Your task to perform on an android device: Is it going to rain today? Image 0: 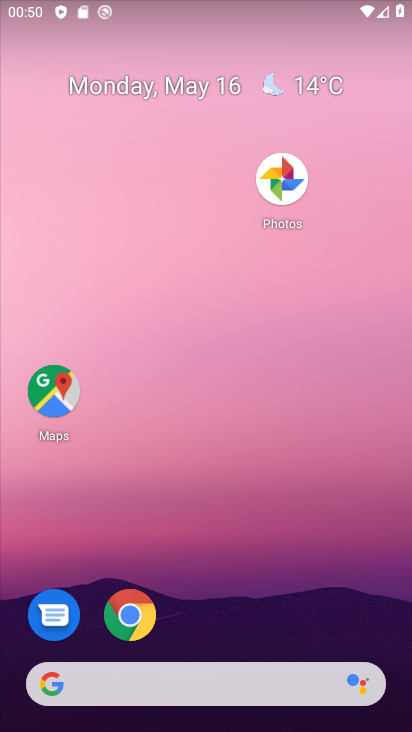
Step 0: click (330, 150)
Your task to perform on an android device: Is it going to rain today? Image 1: 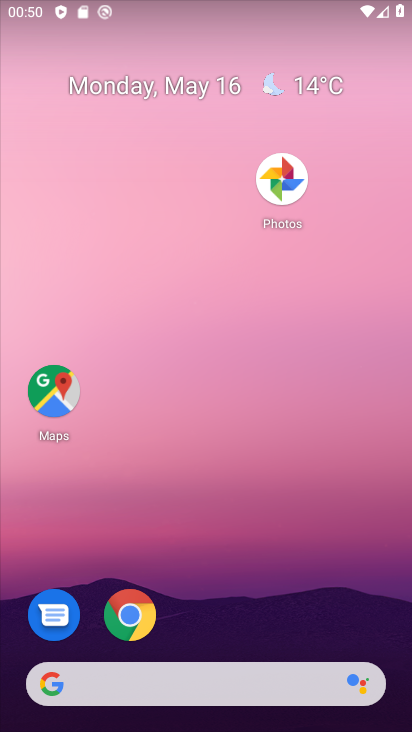
Step 1: drag from (337, 546) to (334, 96)
Your task to perform on an android device: Is it going to rain today? Image 2: 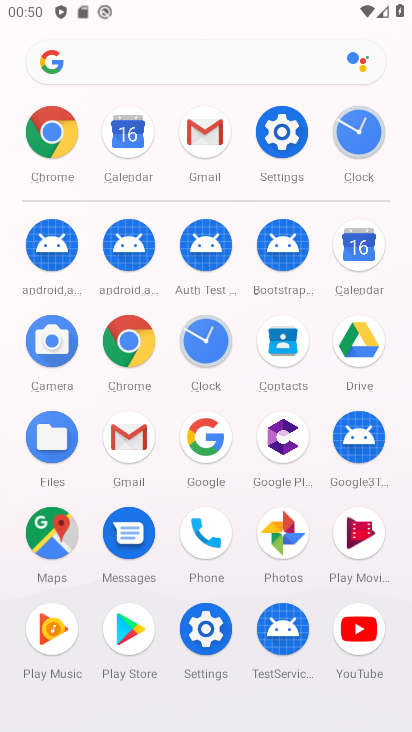
Step 2: click (129, 331)
Your task to perform on an android device: Is it going to rain today? Image 3: 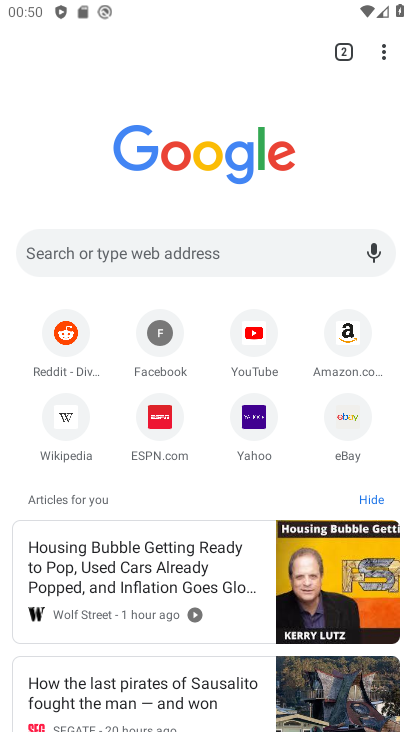
Step 3: click (146, 235)
Your task to perform on an android device: Is it going to rain today? Image 4: 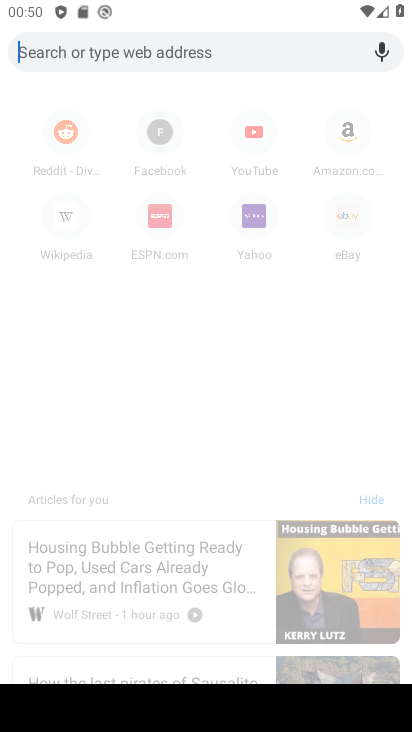
Step 4: type "is it going to rain today"
Your task to perform on an android device: Is it going to rain today? Image 5: 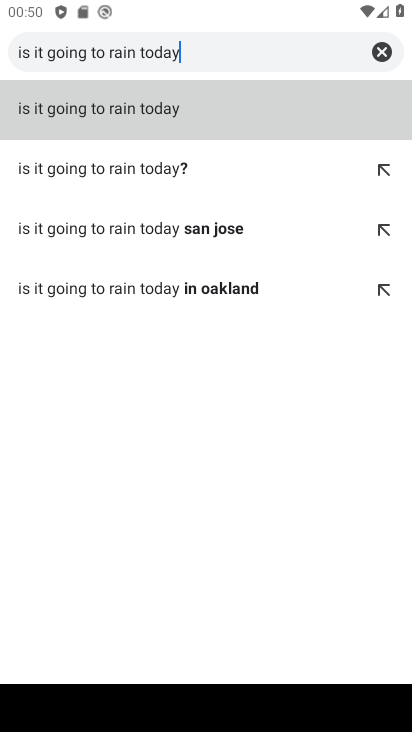
Step 5: click (179, 107)
Your task to perform on an android device: Is it going to rain today? Image 6: 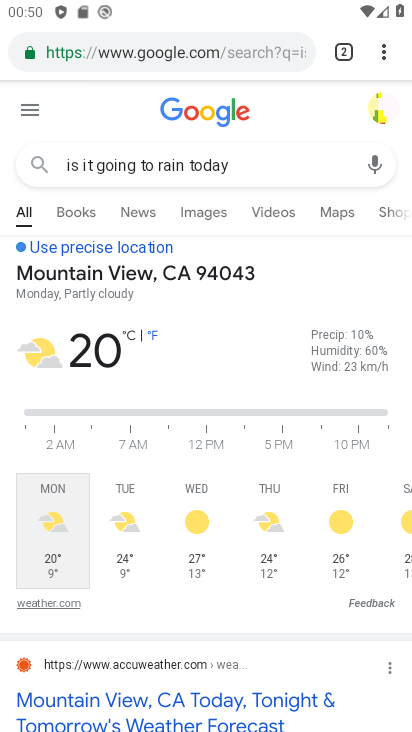
Step 6: task complete